Your task to perform on an android device: What's the weather? Image 0: 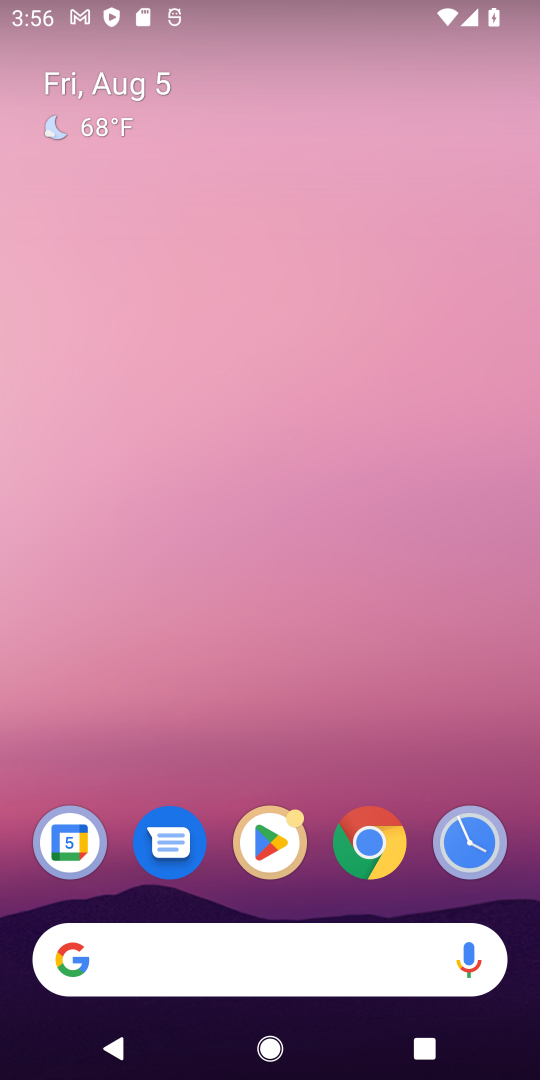
Step 0: click (220, 942)
Your task to perform on an android device: What's the weather? Image 1: 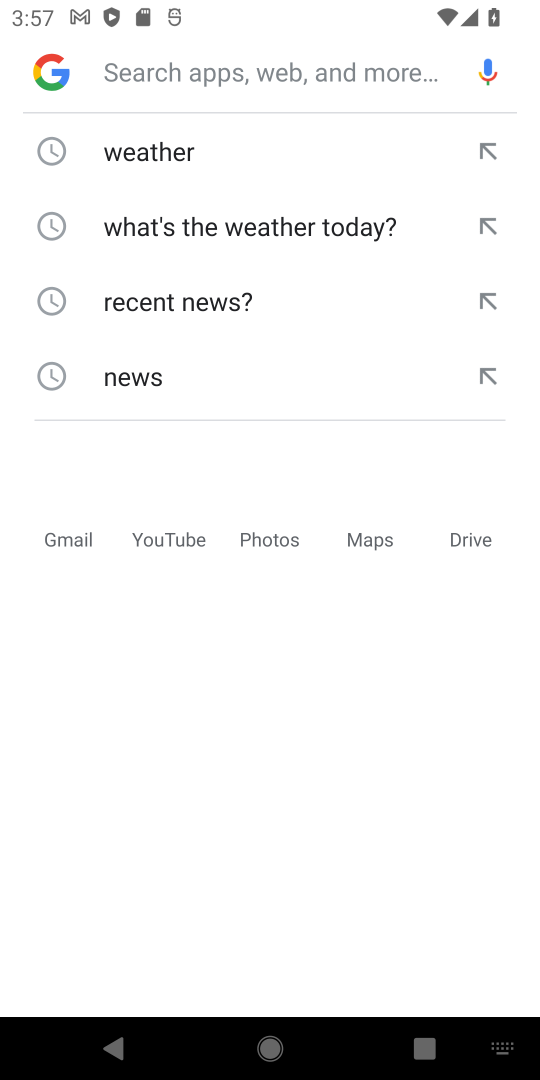
Step 1: click (154, 165)
Your task to perform on an android device: What's the weather? Image 2: 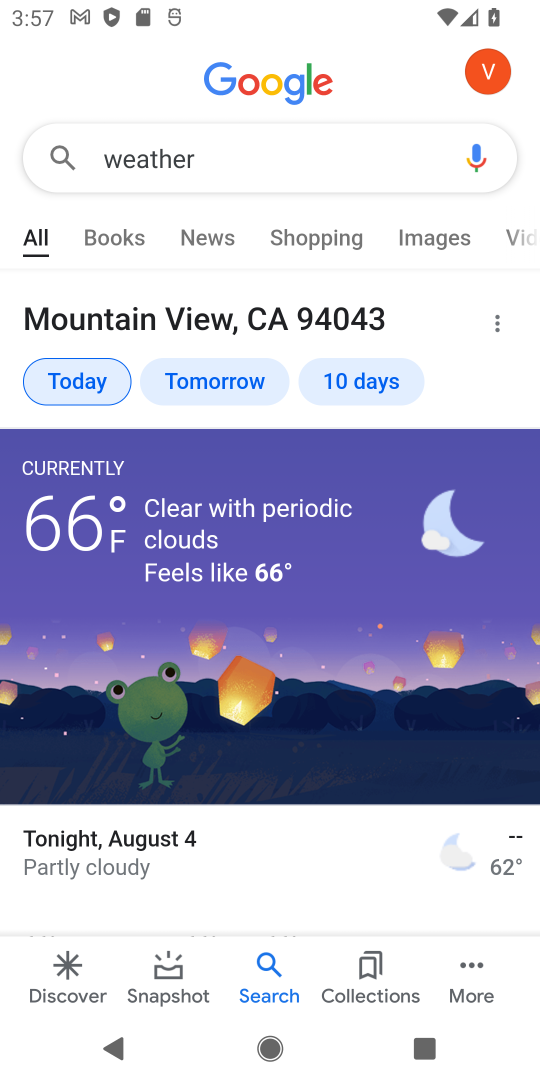
Step 2: task complete